Your task to perform on an android device: delete a single message in the gmail app Image 0: 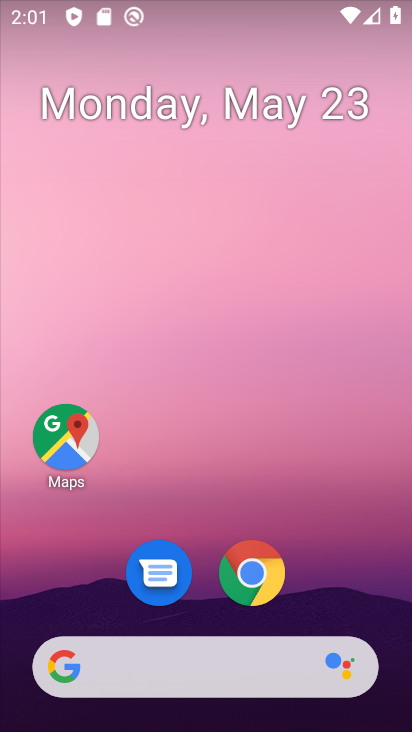
Step 0: drag from (372, 574) to (385, 104)
Your task to perform on an android device: delete a single message in the gmail app Image 1: 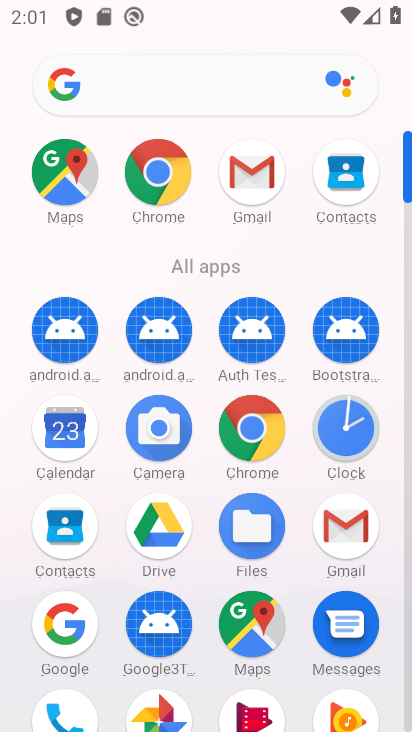
Step 1: click (350, 535)
Your task to perform on an android device: delete a single message in the gmail app Image 2: 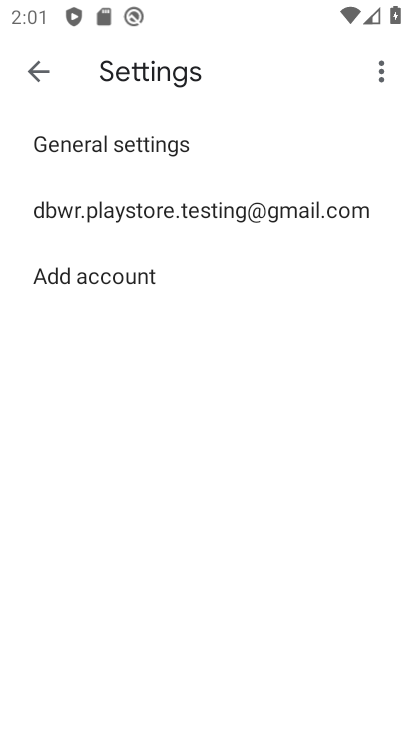
Step 2: click (35, 78)
Your task to perform on an android device: delete a single message in the gmail app Image 3: 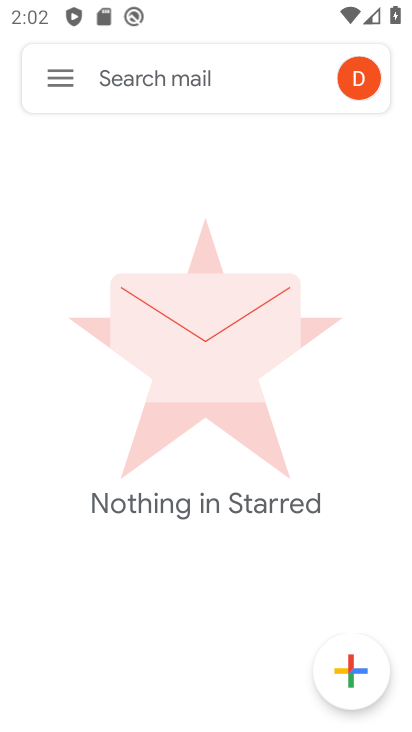
Step 3: click (57, 83)
Your task to perform on an android device: delete a single message in the gmail app Image 4: 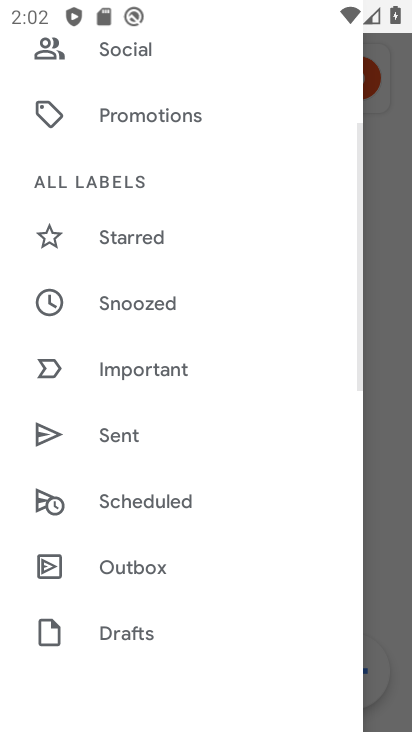
Step 4: drag from (248, 591) to (271, 432)
Your task to perform on an android device: delete a single message in the gmail app Image 5: 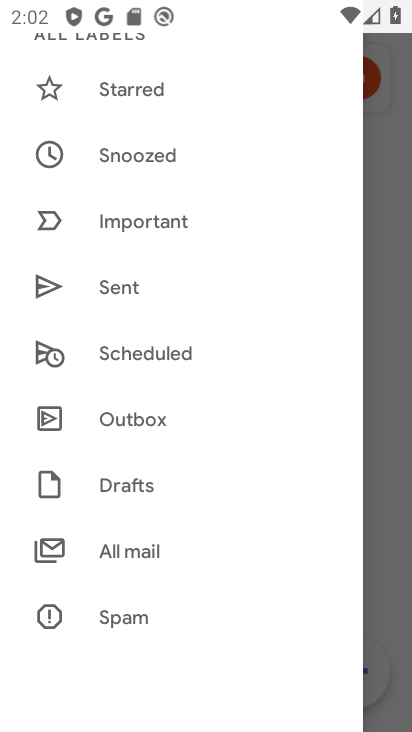
Step 5: drag from (276, 545) to (282, 417)
Your task to perform on an android device: delete a single message in the gmail app Image 6: 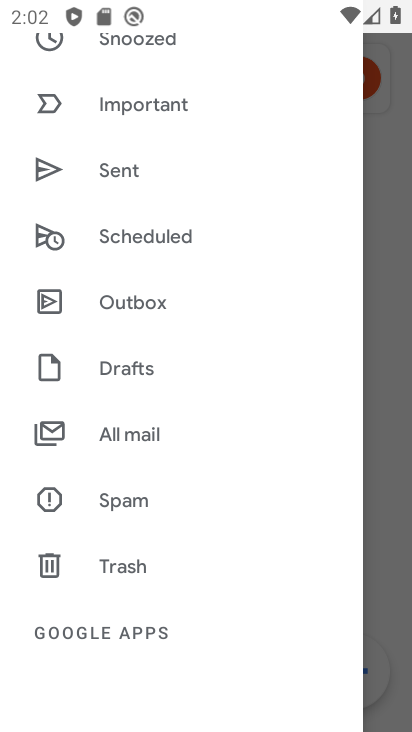
Step 6: drag from (262, 589) to (272, 408)
Your task to perform on an android device: delete a single message in the gmail app Image 7: 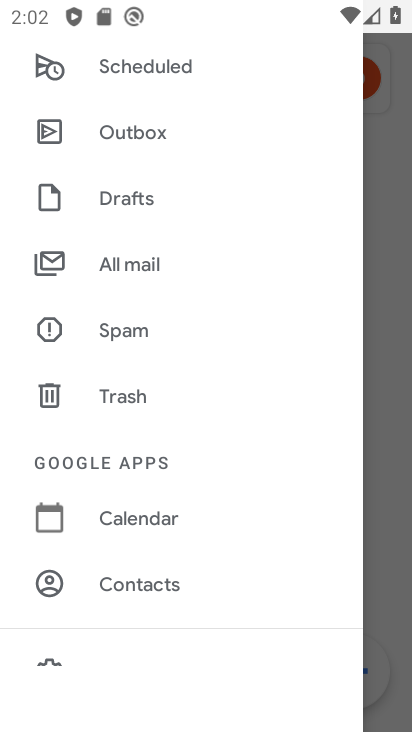
Step 7: drag from (287, 528) to (285, 297)
Your task to perform on an android device: delete a single message in the gmail app Image 8: 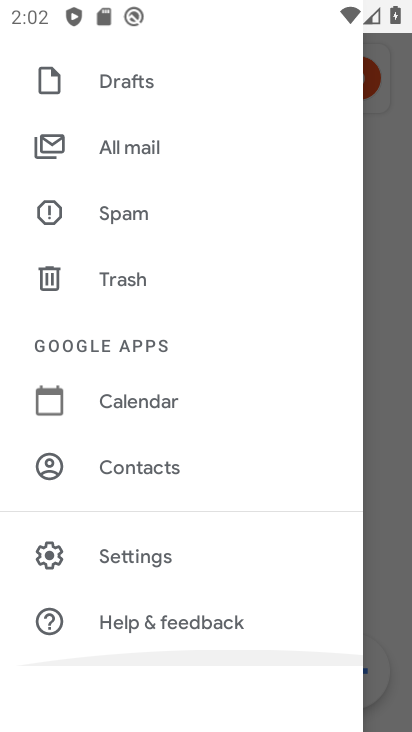
Step 8: drag from (277, 355) to (263, 461)
Your task to perform on an android device: delete a single message in the gmail app Image 9: 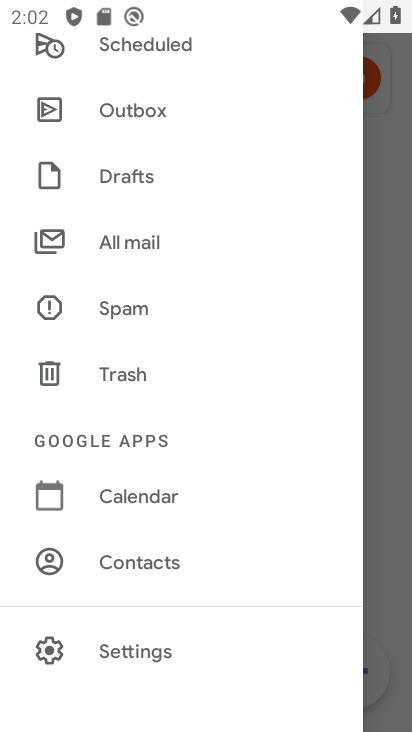
Step 9: drag from (259, 221) to (258, 388)
Your task to perform on an android device: delete a single message in the gmail app Image 10: 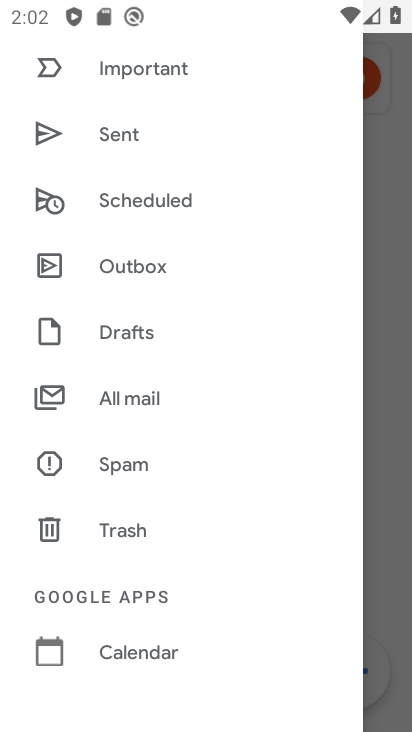
Step 10: drag from (259, 211) to (248, 332)
Your task to perform on an android device: delete a single message in the gmail app Image 11: 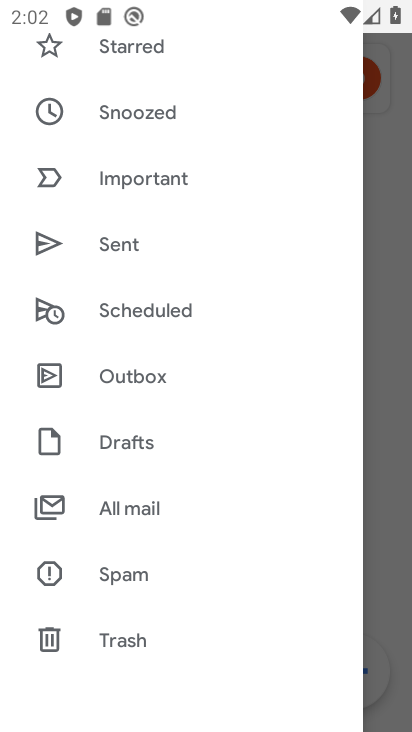
Step 11: drag from (252, 144) to (246, 283)
Your task to perform on an android device: delete a single message in the gmail app Image 12: 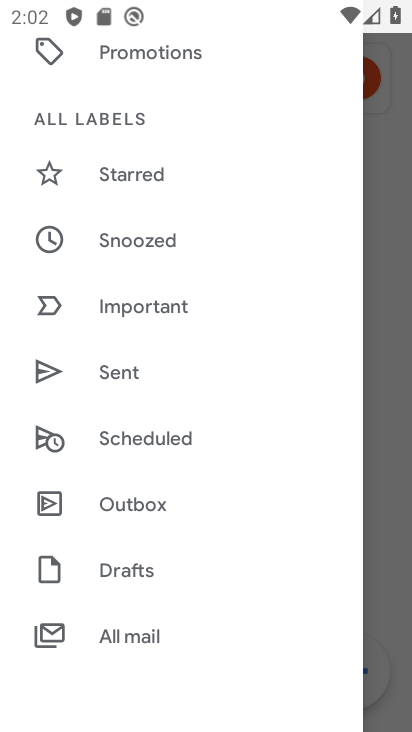
Step 12: drag from (260, 138) to (257, 272)
Your task to perform on an android device: delete a single message in the gmail app Image 13: 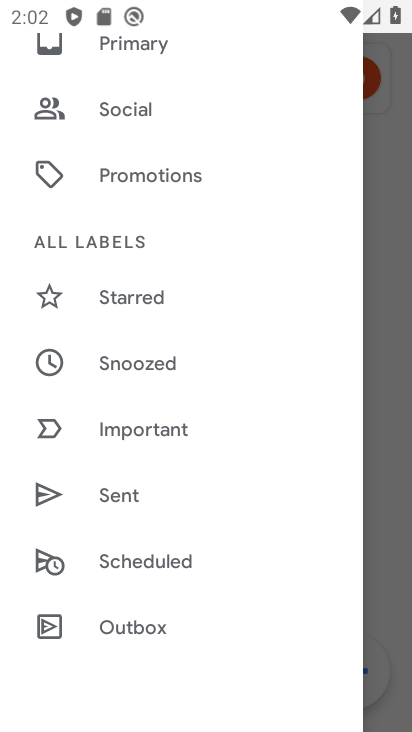
Step 13: drag from (261, 95) to (260, 254)
Your task to perform on an android device: delete a single message in the gmail app Image 14: 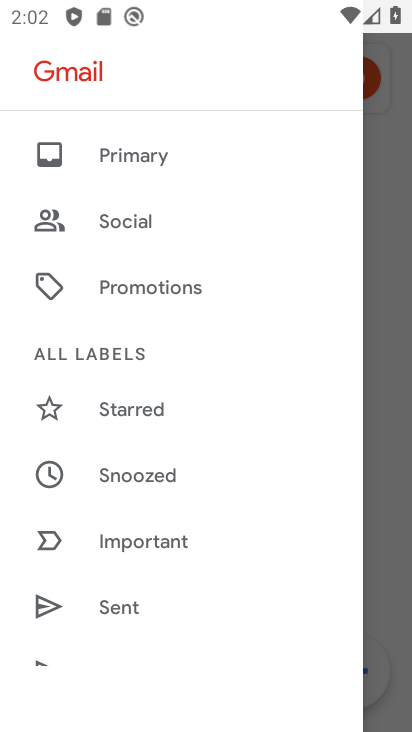
Step 14: drag from (241, 109) to (239, 254)
Your task to perform on an android device: delete a single message in the gmail app Image 15: 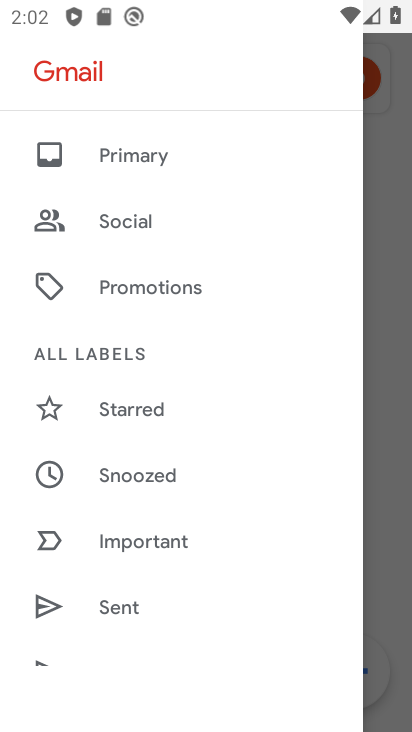
Step 15: click (130, 163)
Your task to perform on an android device: delete a single message in the gmail app Image 16: 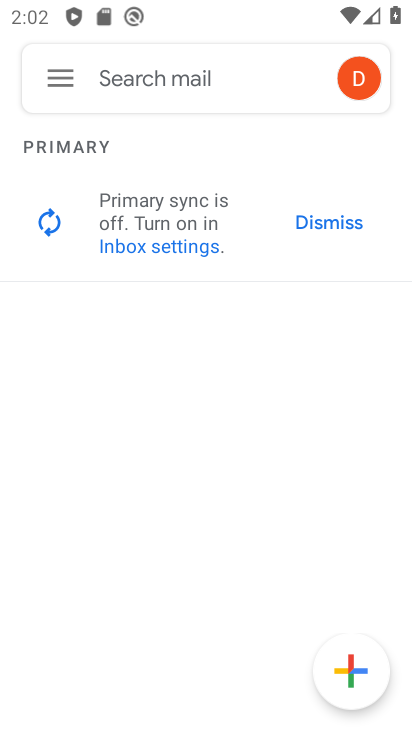
Step 16: task complete